Your task to perform on an android device: turn off javascript in the chrome app Image 0: 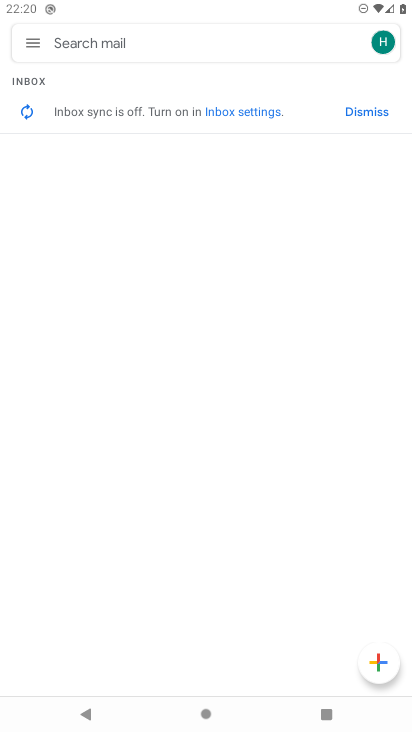
Step 0: press home button
Your task to perform on an android device: turn off javascript in the chrome app Image 1: 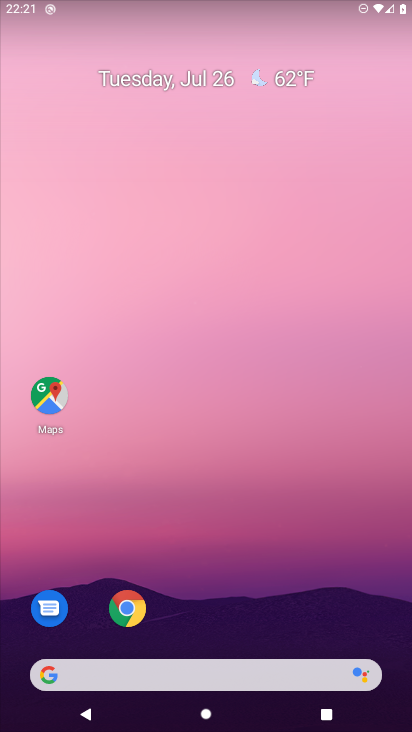
Step 1: click (132, 608)
Your task to perform on an android device: turn off javascript in the chrome app Image 2: 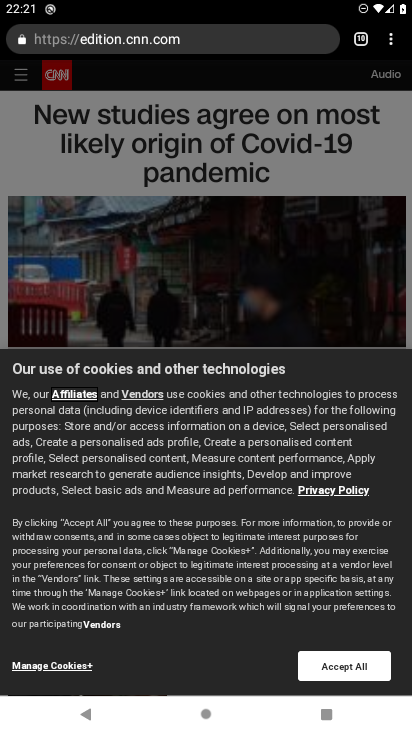
Step 2: click (389, 41)
Your task to perform on an android device: turn off javascript in the chrome app Image 3: 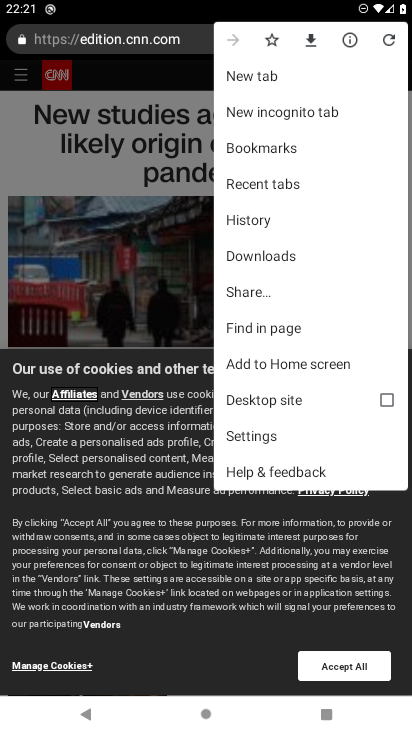
Step 3: click (271, 433)
Your task to perform on an android device: turn off javascript in the chrome app Image 4: 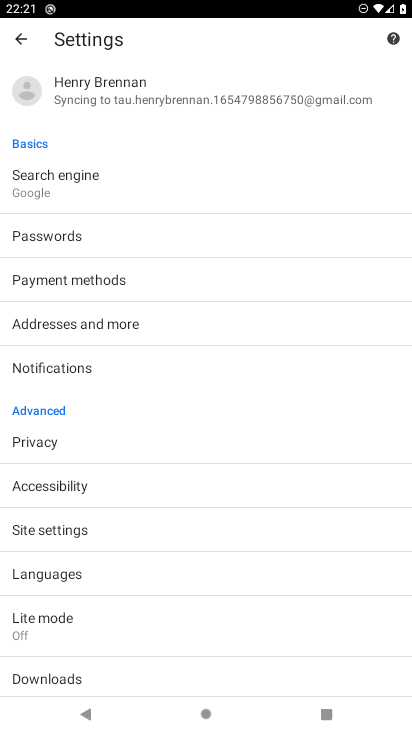
Step 4: click (49, 532)
Your task to perform on an android device: turn off javascript in the chrome app Image 5: 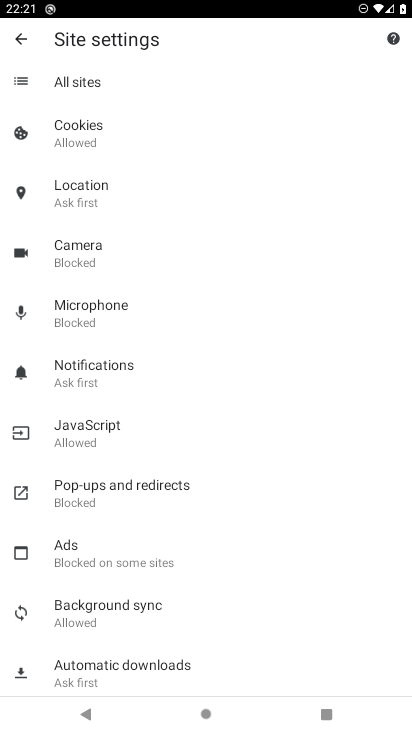
Step 5: click (84, 433)
Your task to perform on an android device: turn off javascript in the chrome app Image 6: 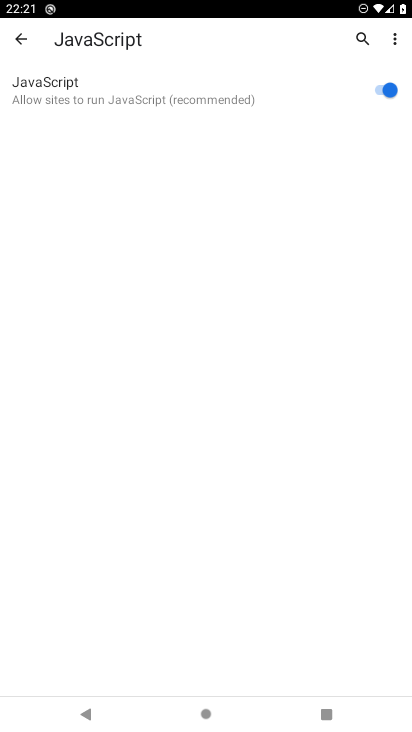
Step 6: click (389, 86)
Your task to perform on an android device: turn off javascript in the chrome app Image 7: 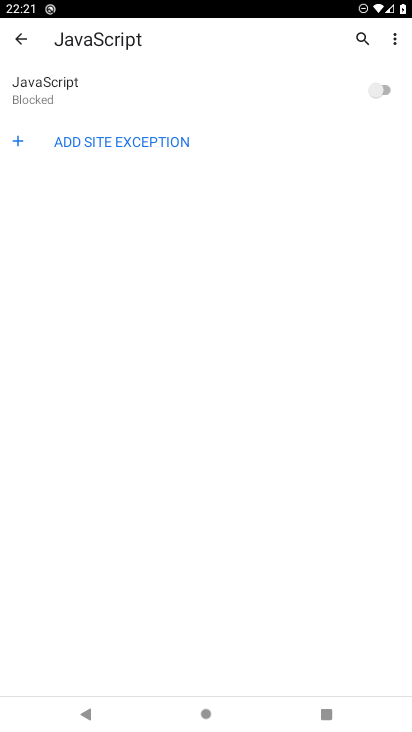
Step 7: task complete